Your task to perform on an android device: show emergency info Image 0: 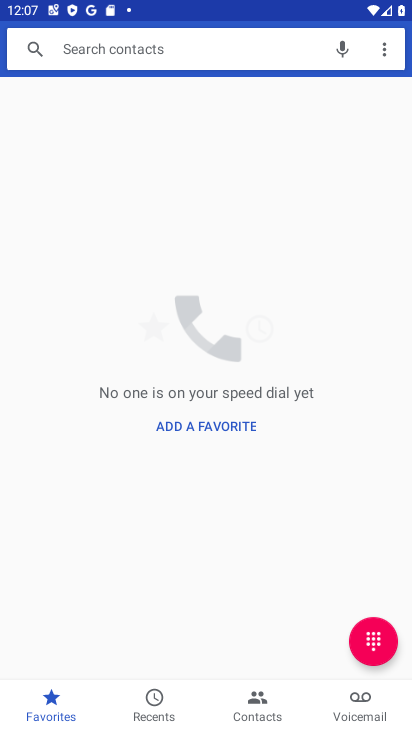
Step 0: press home button
Your task to perform on an android device: show emergency info Image 1: 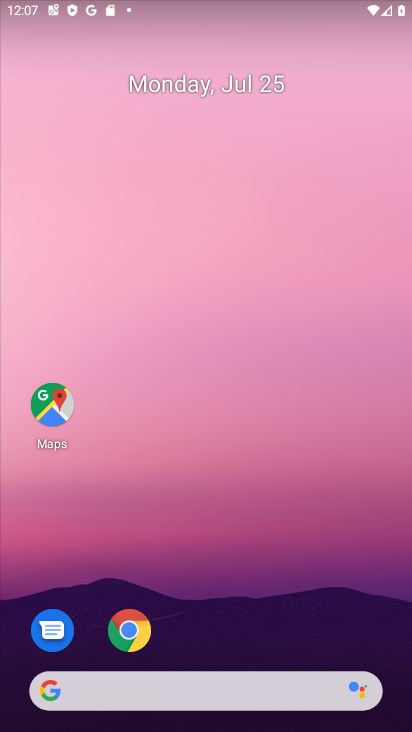
Step 1: drag from (170, 679) to (174, 17)
Your task to perform on an android device: show emergency info Image 2: 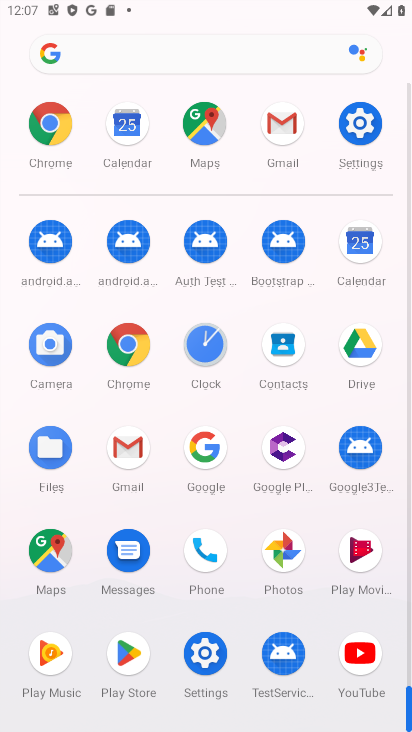
Step 2: click (370, 140)
Your task to perform on an android device: show emergency info Image 3: 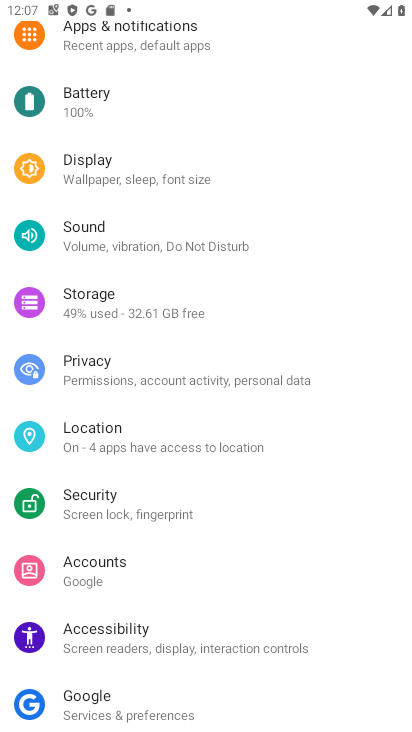
Step 3: drag from (187, 601) to (231, 21)
Your task to perform on an android device: show emergency info Image 4: 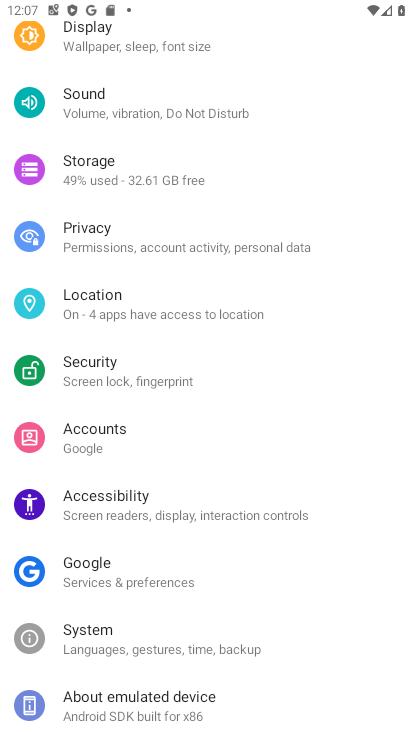
Step 4: click (129, 699)
Your task to perform on an android device: show emergency info Image 5: 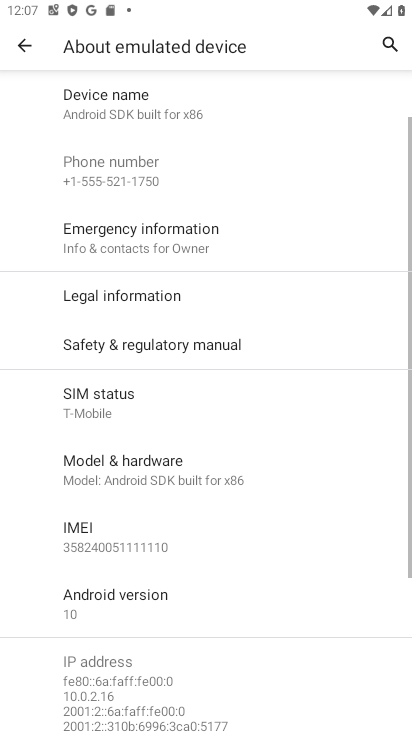
Step 5: click (92, 247)
Your task to perform on an android device: show emergency info Image 6: 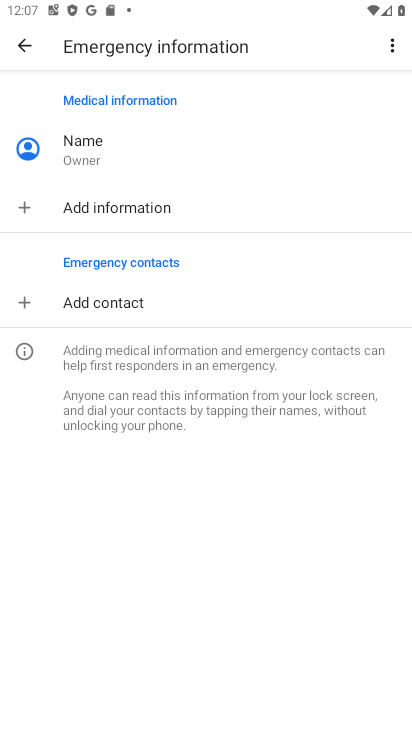
Step 6: task complete